Your task to perform on an android device: turn on wifi Image 0: 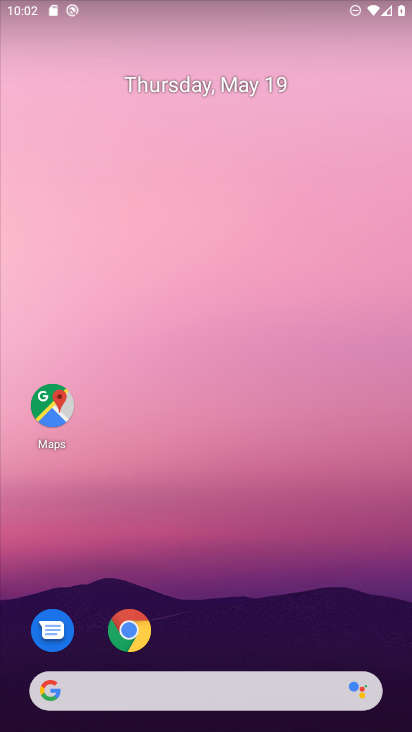
Step 0: drag from (359, 599) to (293, 175)
Your task to perform on an android device: turn on wifi Image 1: 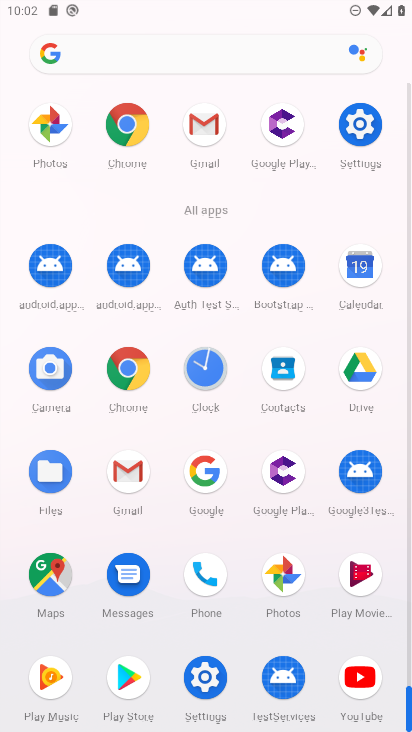
Step 1: click (349, 128)
Your task to perform on an android device: turn on wifi Image 2: 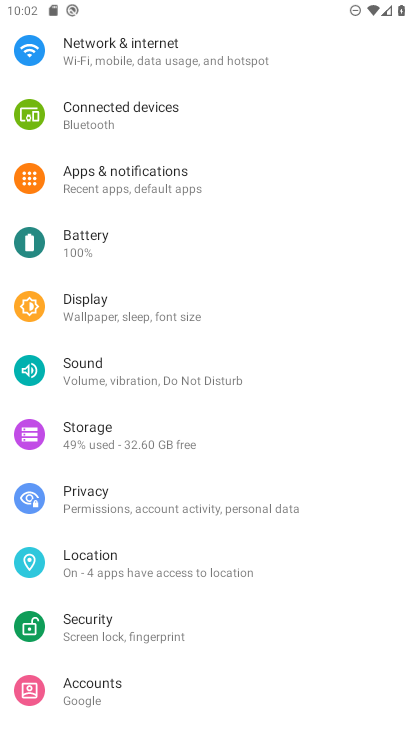
Step 2: drag from (183, 83) to (174, 488)
Your task to perform on an android device: turn on wifi Image 3: 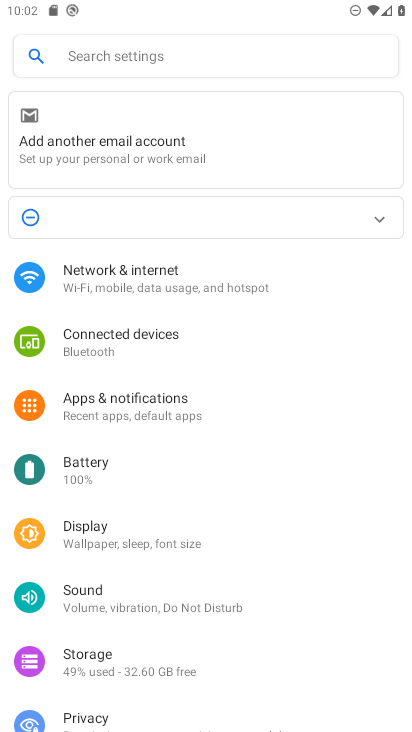
Step 3: click (182, 287)
Your task to perform on an android device: turn on wifi Image 4: 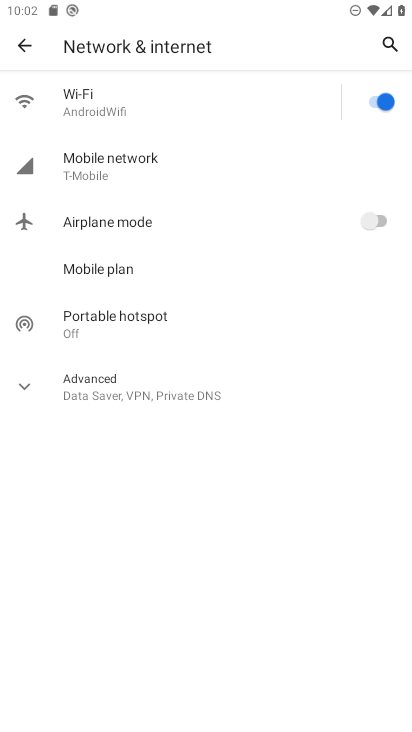
Step 4: task complete